Your task to perform on an android device: move an email to a new category in the gmail app Image 0: 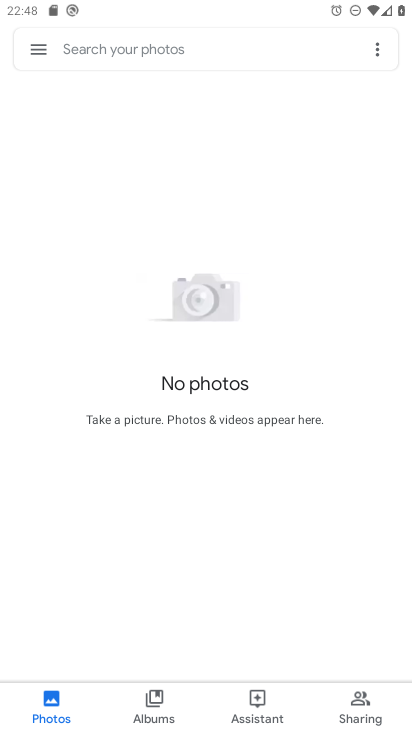
Step 0: press home button
Your task to perform on an android device: move an email to a new category in the gmail app Image 1: 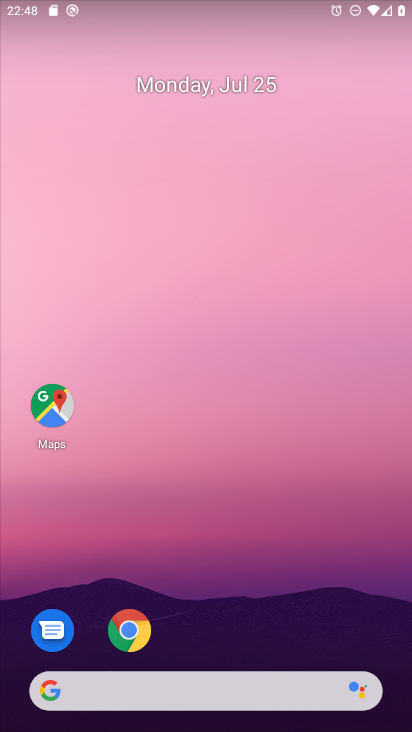
Step 1: drag from (269, 604) to (247, 68)
Your task to perform on an android device: move an email to a new category in the gmail app Image 2: 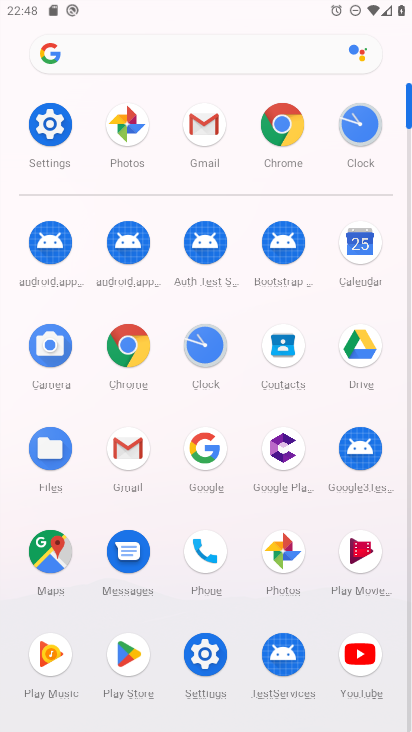
Step 2: click (207, 132)
Your task to perform on an android device: move an email to a new category in the gmail app Image 3: 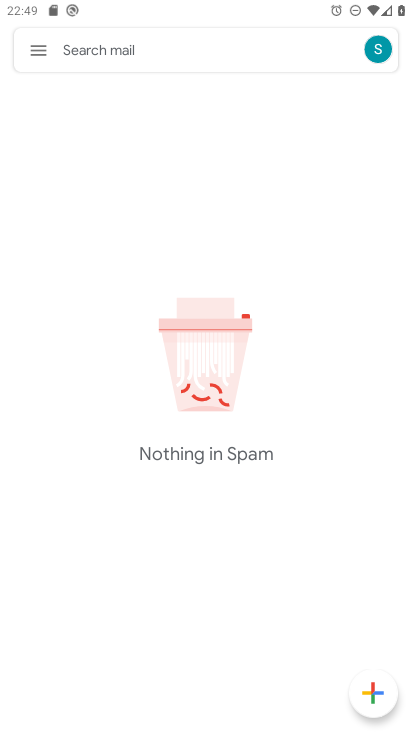
Step 3: click (34, 49)
Your task to perform on an android device: move an email to a new category in the gmail app Image 4: 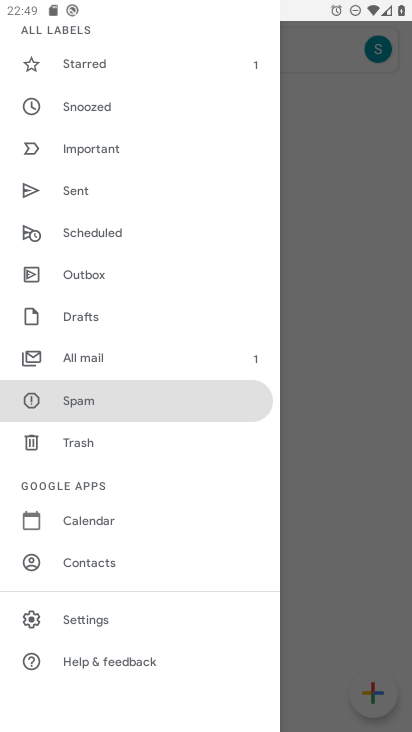
Step 4: drag from (106, 153) to (99, 326)
Your task to perform on an android device: move an email to a new category in the gmail app Image 5: 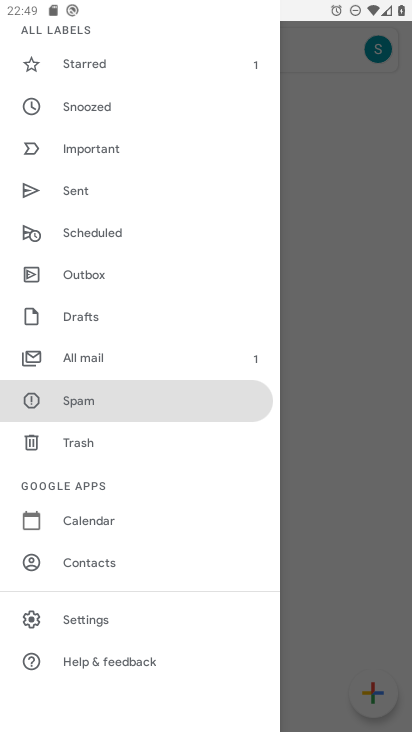
Step 5: click (95, 353)
Your task to perform on an android device: move an email to a new category in the gmail app Image 6: 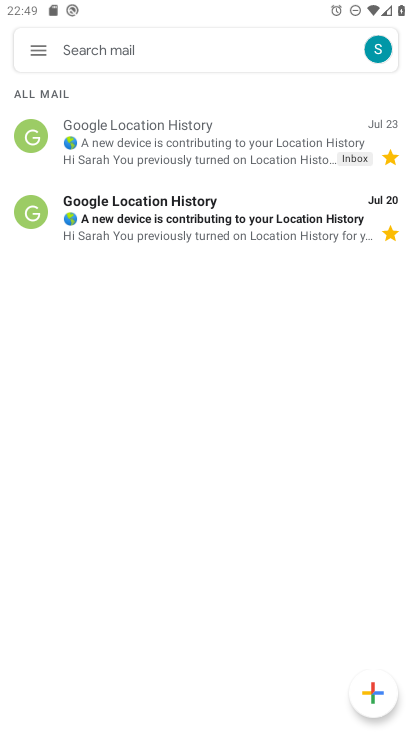
Step 6: click (302, 161)
Your task to perform on an android device: move an email to a new category in the gmail app Image 7: 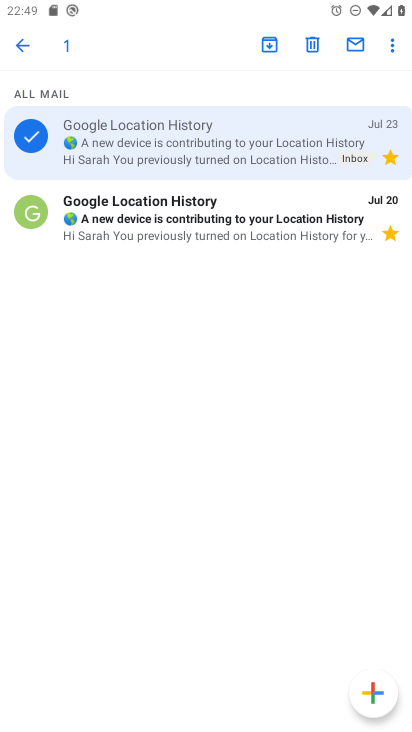
Step 7: click (393, 44)
Your task to perform on an android device: move an email to a new category in the gmail app Image 8: 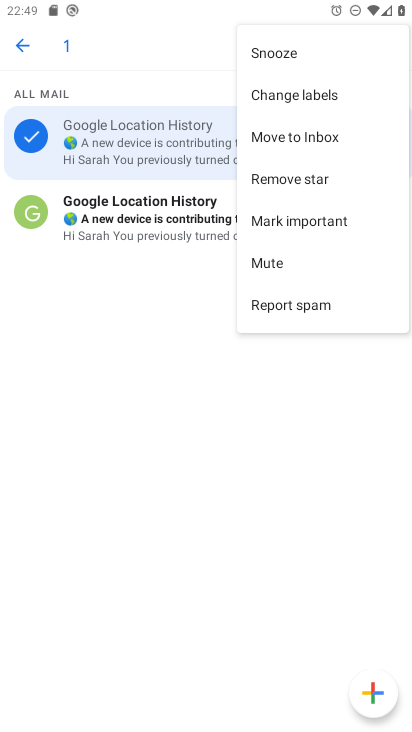
Step 8: click (298, 135)
Your task to perform on an android device: move an email to a new category in the gmail app Image 9: 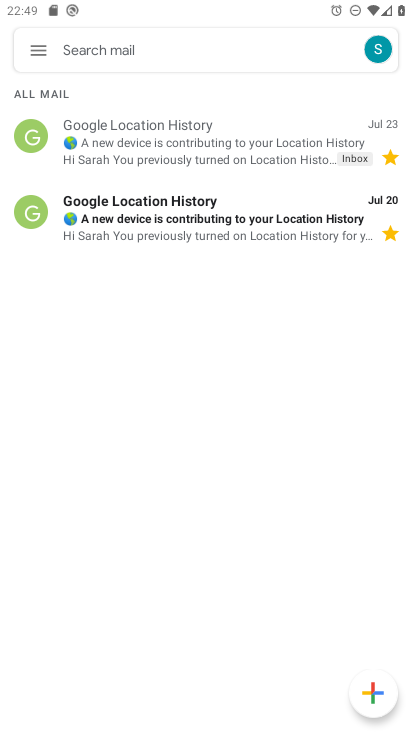
Step 9: task complete